Your task to perform on an android device: Open Amazon Image 0: 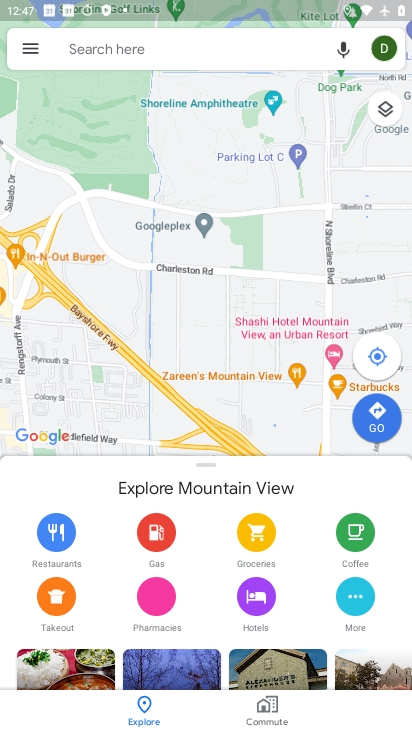
Step 0: click (230, 58)
Your task to perform on an android device: Open Amazon Image 1: 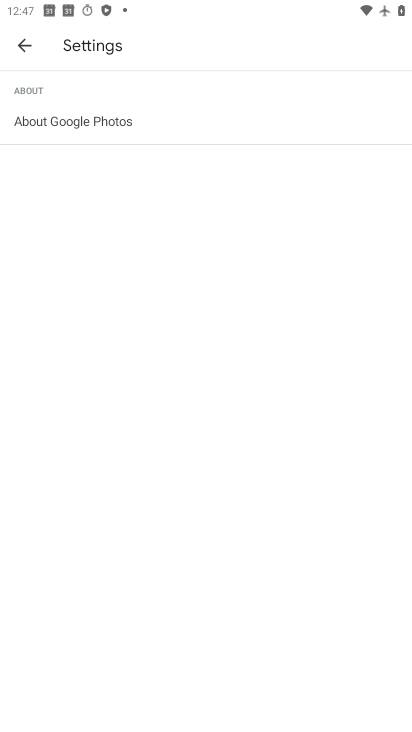
Step 1: press home button
Your task to perform on an android device: Open Amazon Image 2: 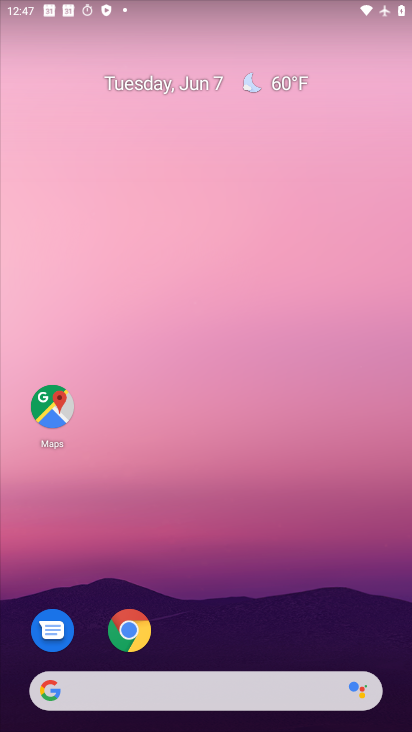
Step 2: drag from (348, 619) to (232, 31)
Your task to perform on an android device: Open Amazon Image 3: 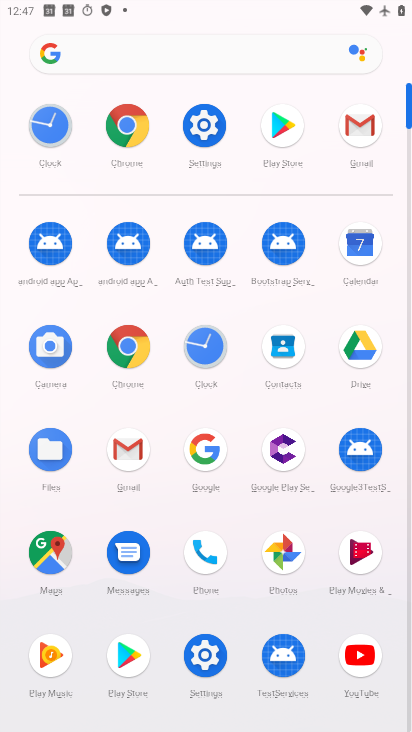
Step 3: click (191, 445)
Your task to perform on an android device: Open Amazon Image 4: 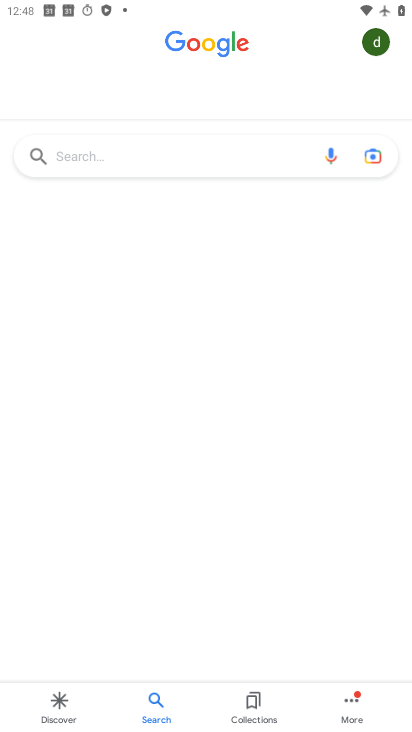
Step 4: click (156, 165)
Your task to perform on an android device: Open Amazon Image 5: 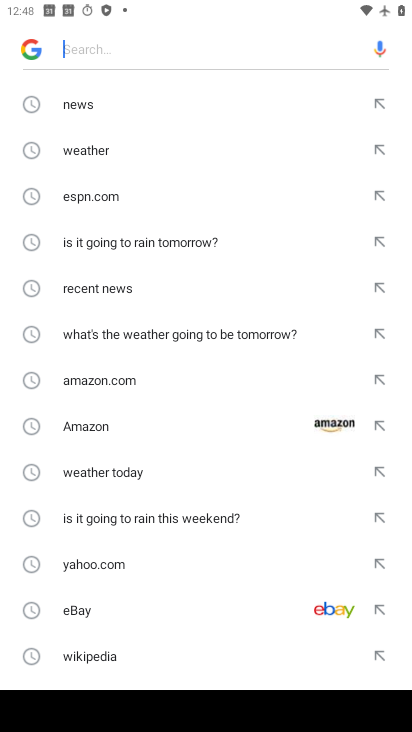
Step 5: click (146, 424)
Your task to perform on an android device: Open Amazon Image 6: 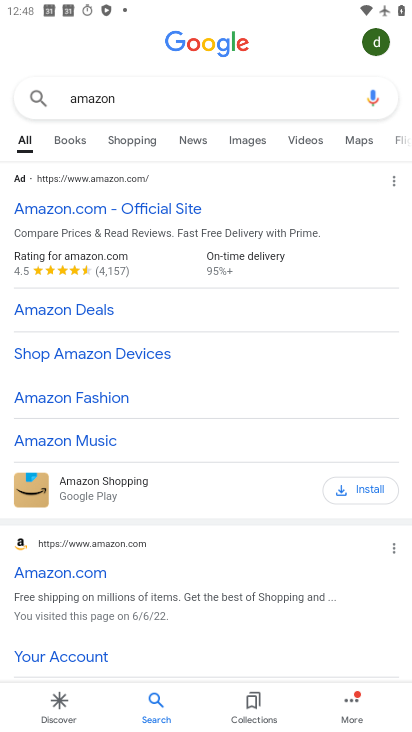
Step 6: task complete